Your task to perform on an android device: turn off sleep mode Image 0: 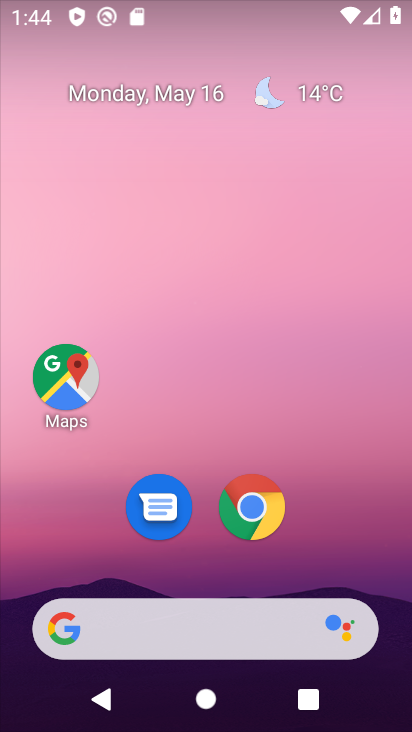
Step 0: drag from (259, 576) to (322, 145)
Your task to perform on an android device: turn off sleep mode Image 1: 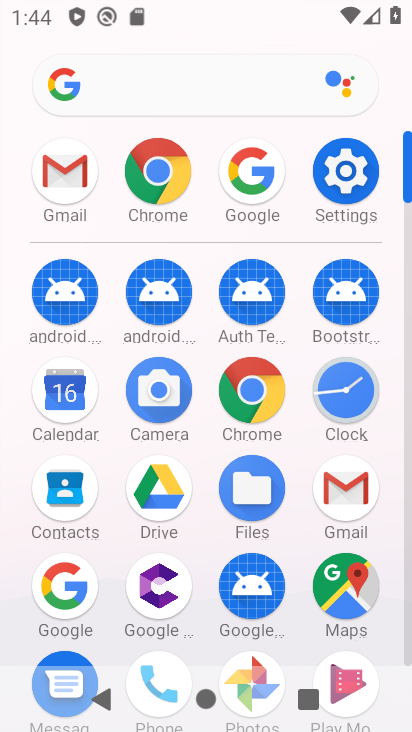
Step 1: click (355, 178)
Your task to perform on an android device: turn off sleep mode Image 2: 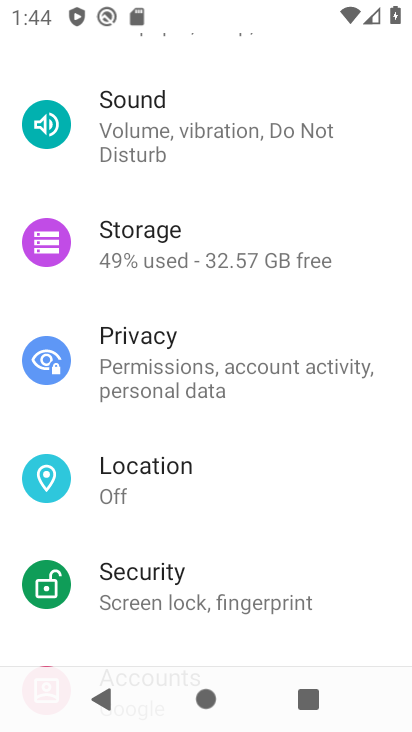
Step 2: task complete